Your task to perform on an android device: See recent photos Image 0: 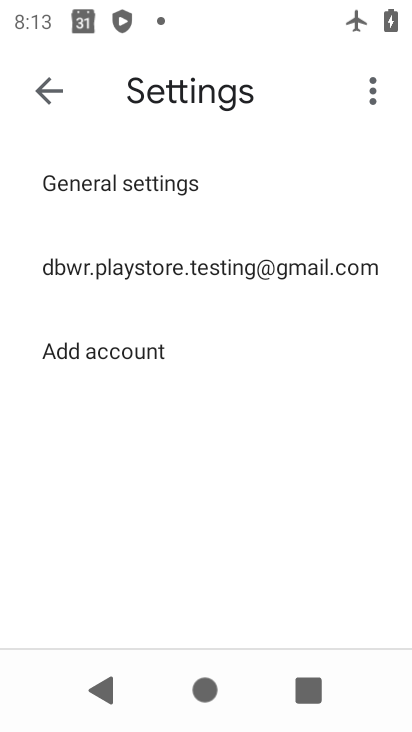
Step 0: press home button
Your task to perform on an android device: See recent photos Image 1: 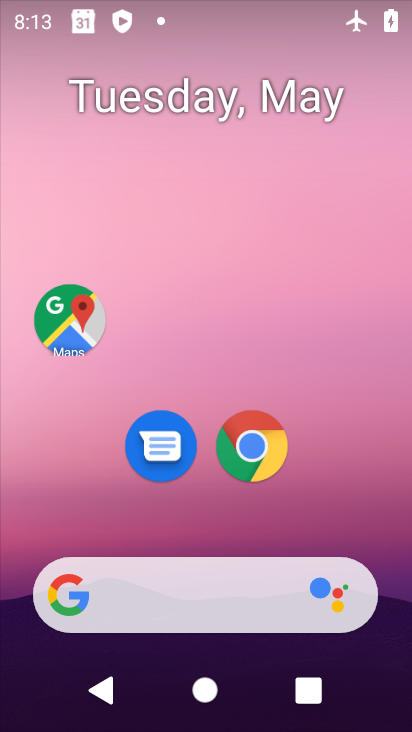
Step 1: drag from (339, 524) to (309, 61)
Your task to perform on an android device: See recent photos Image 2: 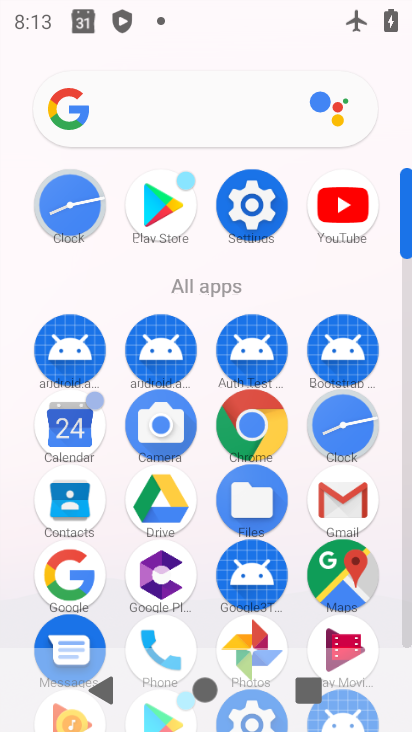
Step 2: click (255, 640)
Your task to perform on an android device: See recent photos Image 3: 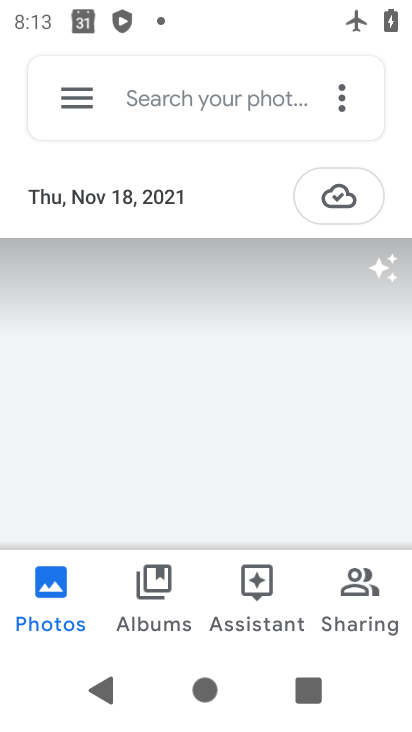
Step 3: task complete